Your task to perform on an android device: change notification settings in the gmail app Image 0: 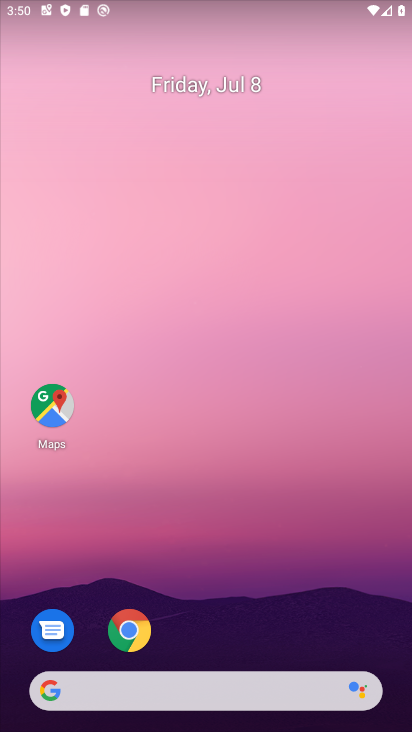
Step 0: drag from (244, 616) to (256, 15)
Your task to perform on an android device: change notification settings in the gmail app Image 1: 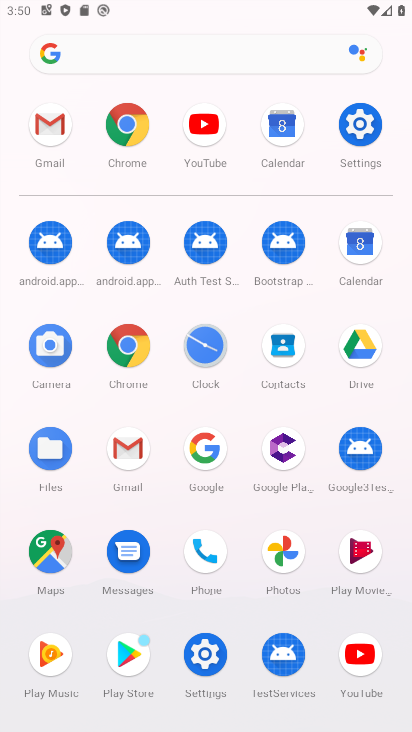
Step 1: click (38, 139)
Your task to perform on an android device: change notification settings in the gmail app Image 2: 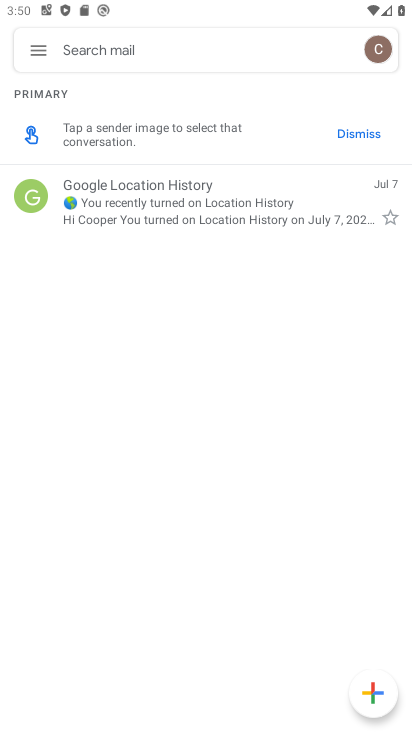
Step 2: click (34, 50)
Your task to perform on an android device: change notification settings in the gmail app Image 3: 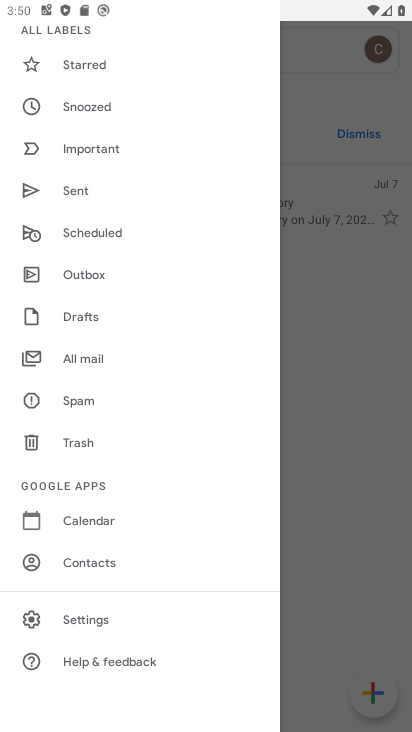
Step 3: click (105, 614)
Your task to perform on an android device: change notification settings in the gmail app Image 4: 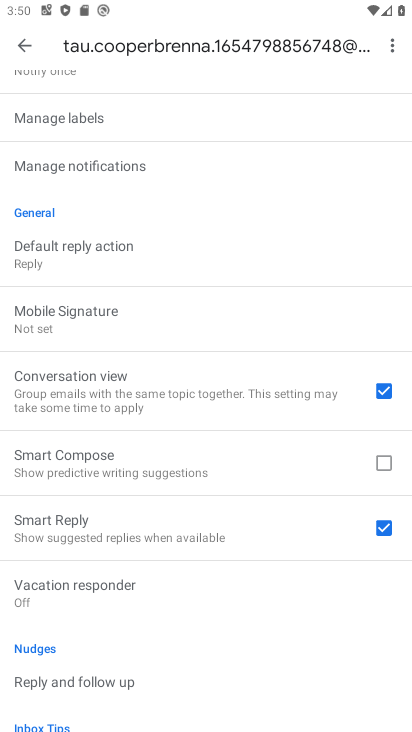
Step 4: click (129, 171)
Your task to perform on an android device: change notification settings in the gmail app Image 5: 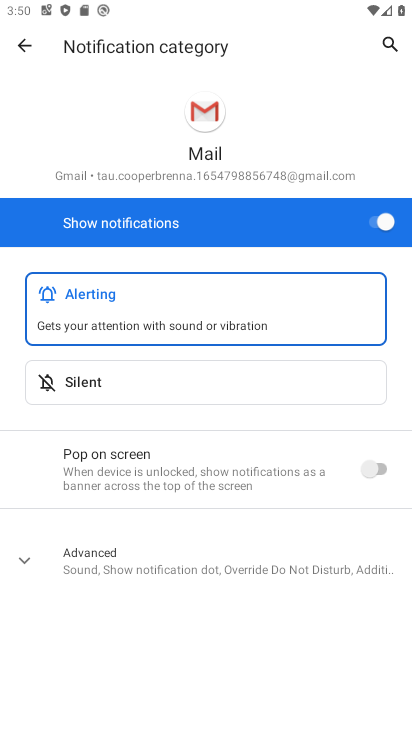
Step 5: task complete